Your task to perform on an android device: check data usage Image 0: 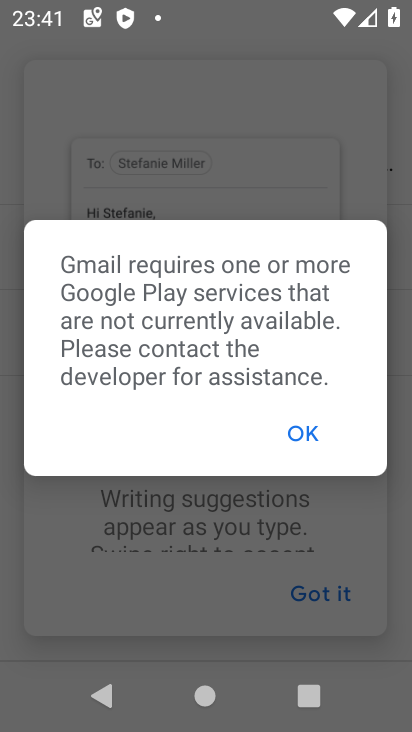
Step 0: drag from (221, 18) to (256, 511)
Your task to perform on an android device: check data usage Image 1: 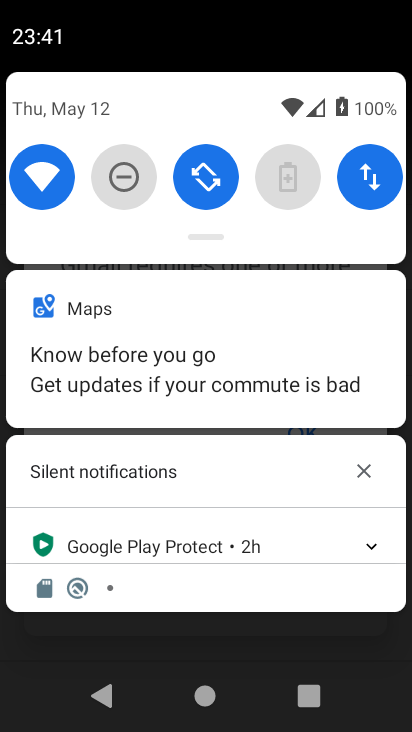
Step 1: click (364, 153)
Your task to perform on an android device: check data usage Image 2: 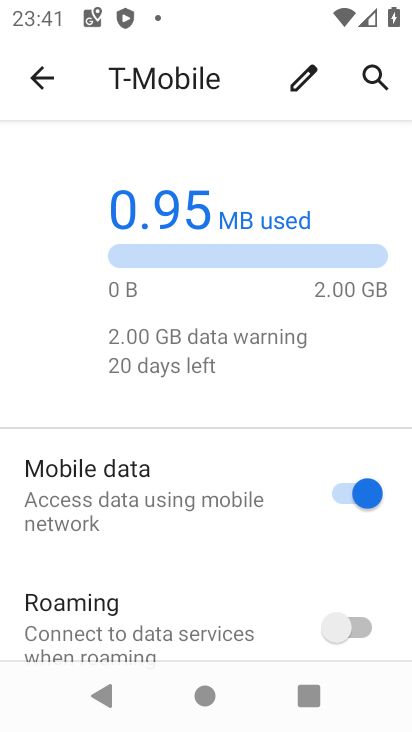
Step 2: task complete